Your task to perform on an android device: turn off picture-in-picture Image 0: 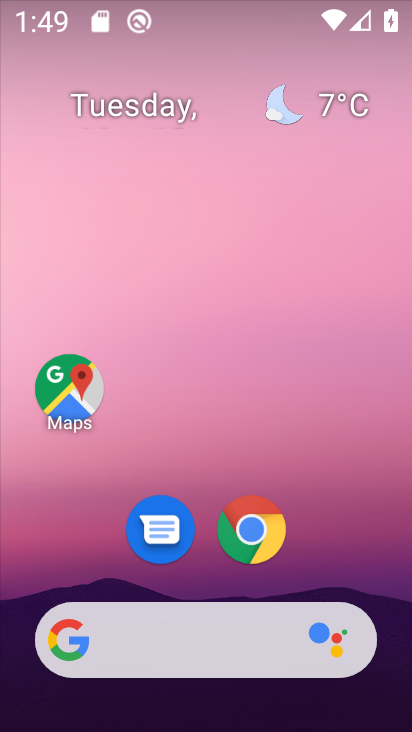
Step 0: click (250, 532)
Your task to perform on an android device: turn off picture-in-picture Image 1: 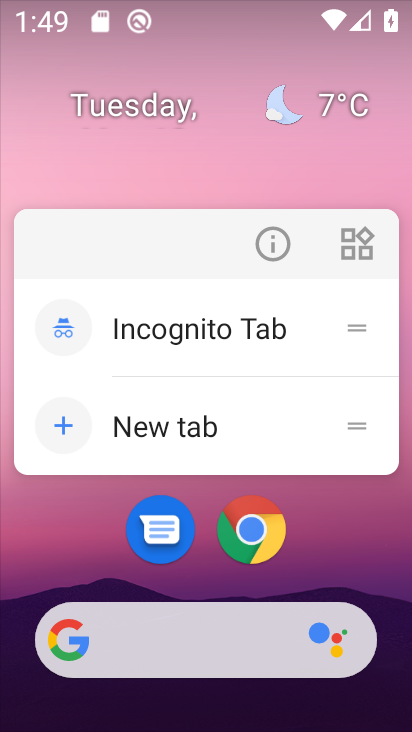
Step 1: click (270, 245)
Your task to perform on an android device: turn off picture-in-picture Image 2: 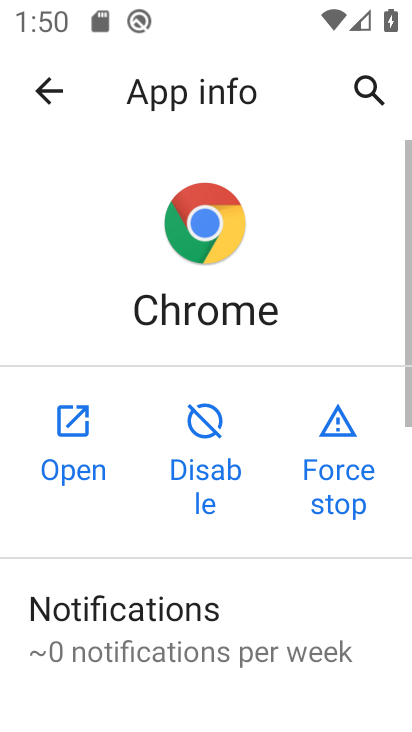
Step 2: drag from (233, 579) to (276, 368)
Your task to perform on an android device: turn off picture-in-picture Image 3: 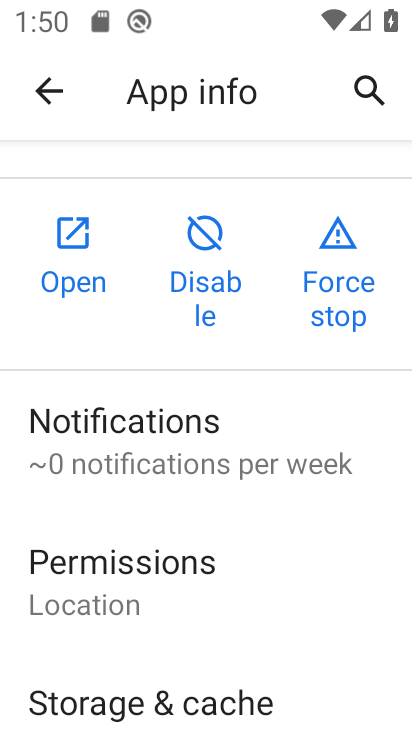
Step 3: drag from (249, 619) to (295, 255)
Your task to perform on an android device: turn off picture-in-picture Image 4: 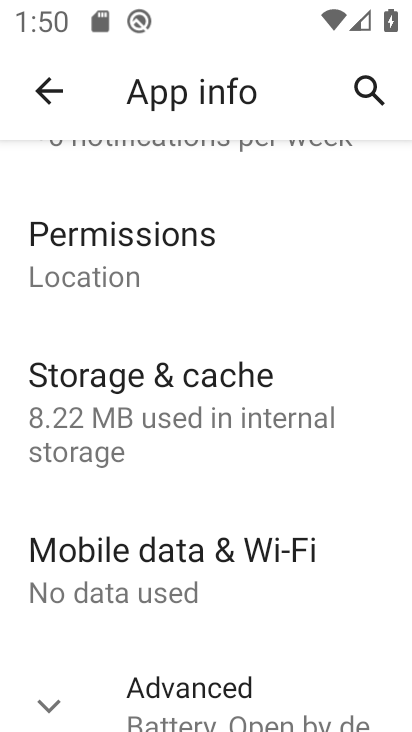
Step 4: drag from (249, 585) to (274, 311)
Your task to perform on an android device: turn off picture-in-picture Image 5: 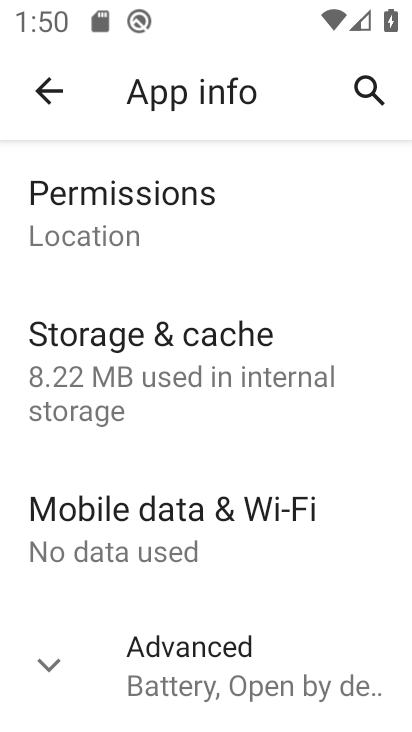
Step 5: click (202, 658)
Your task to perform on an android device: turn off picture-in-picture Image 6: 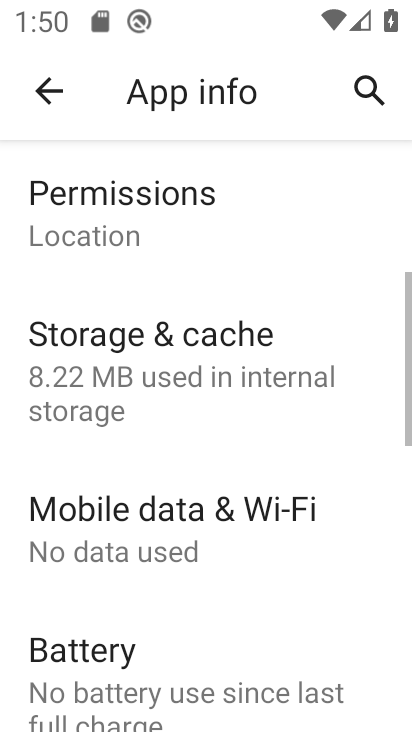
Step 6: drag from (214, 646) to (233, 345)
Your task to perform on an android device: turn off picture-in-picture Image 7: 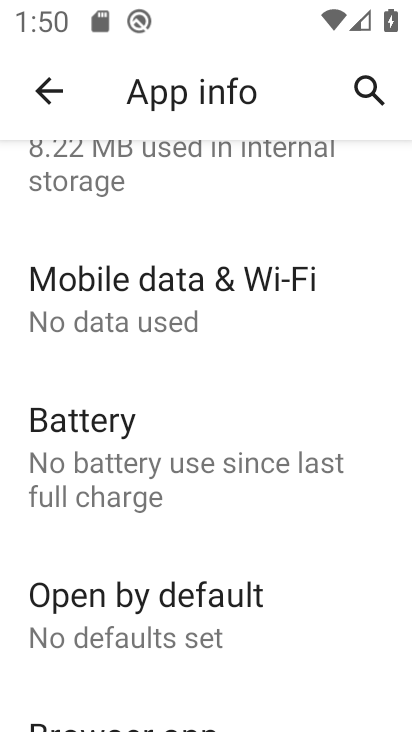
Step 7: drag from (203, 557) to (235, 322)
Your task to perform on an android device: turn off picture-in-picture Image 8: 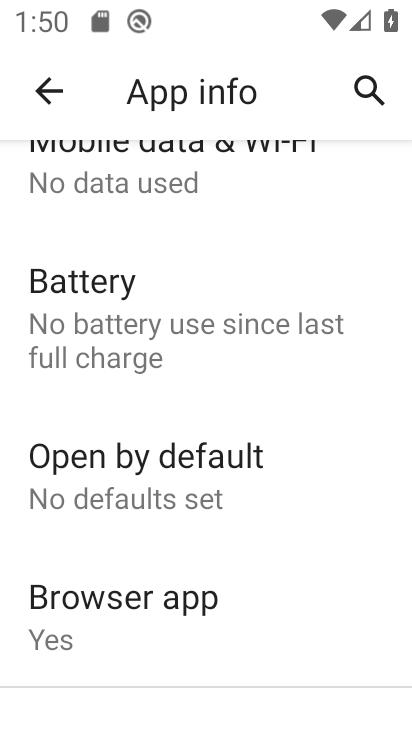
Step 8: drag from (202, 571) to (281, 356)
Your task to perform on an android device: turn off picture-in-picture Image 9: 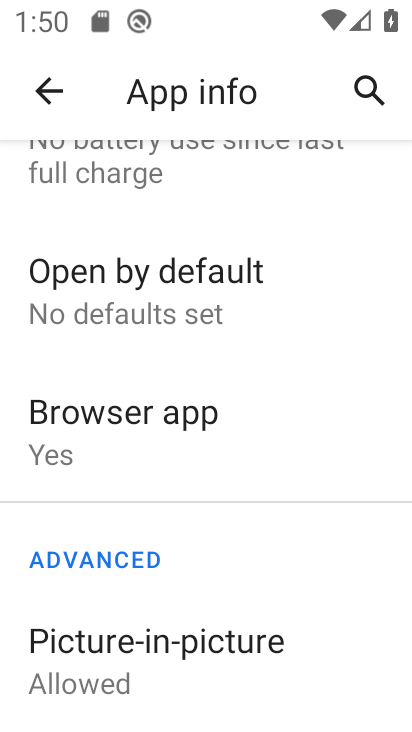
Step 9: click (176, 640)
Your task to perform on an android device: turn off picture-in-picture Image 10: 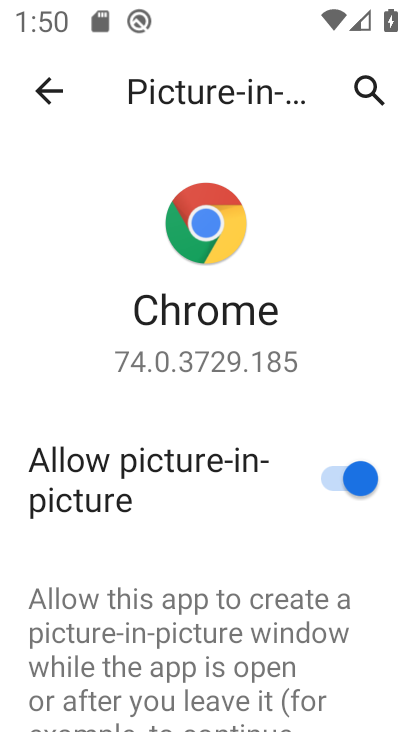
Step 10: click (360, 481)
Your task to perform on an android device: turn off picture-in-picture Image 11: 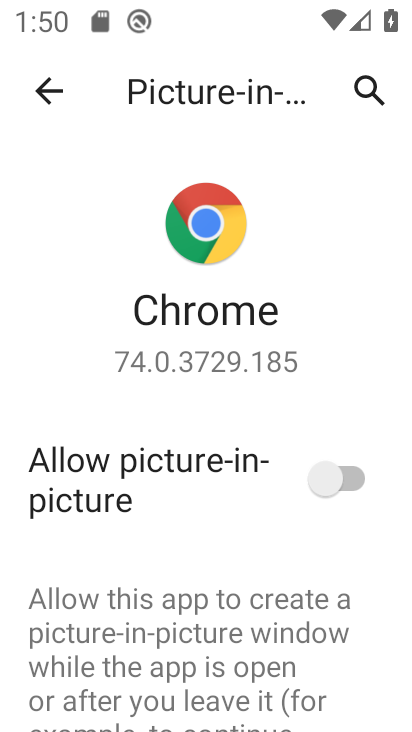
Step 11: task complete